Your task to perform on an android device: delete browsing data in the chrome app Image 0: 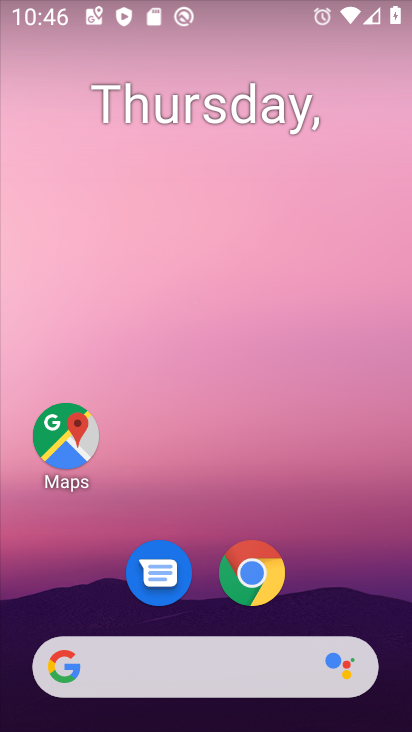
Step 0: click (250, 574)
Your task to perform on an android device: delete browsing data in the chrome app Image 1: 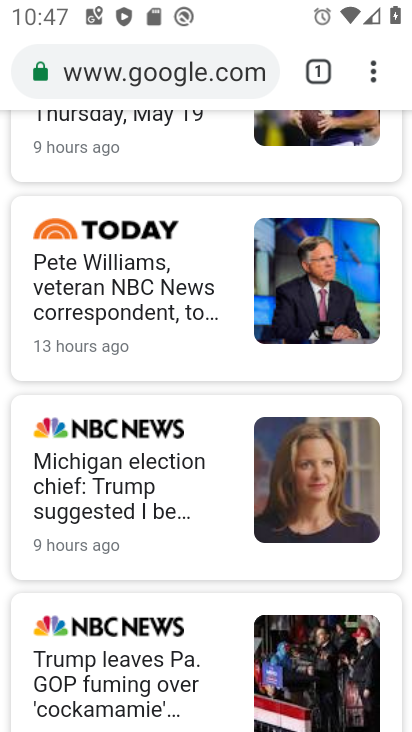
Step 1: click (388, 68)
Your task to perform on an android device: delete browsing data in the chrome app Image 2: 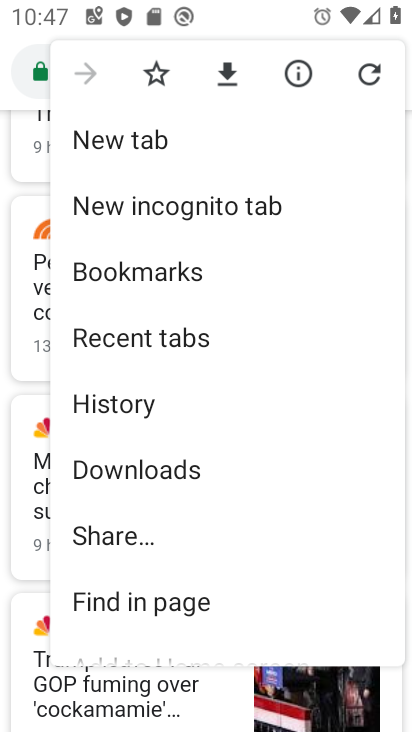
Step 2: click (137, 407)
Your task to perform on an android device: delete browsing data in the chrome app Image 3: 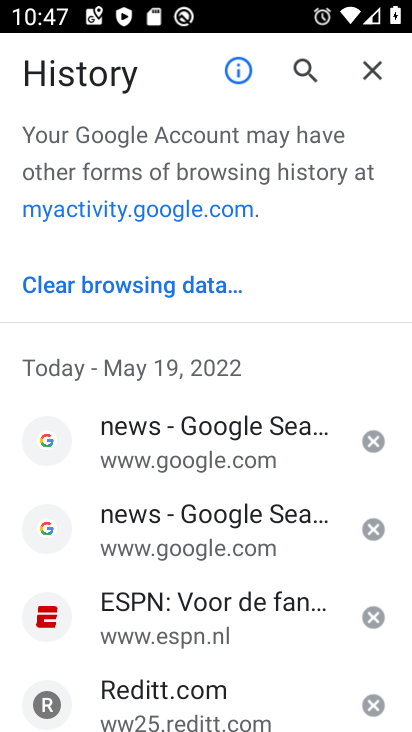
Step 3: click (162, 282)
Your task to perform on an android device: delete browsing data in the chrome app Image 4: 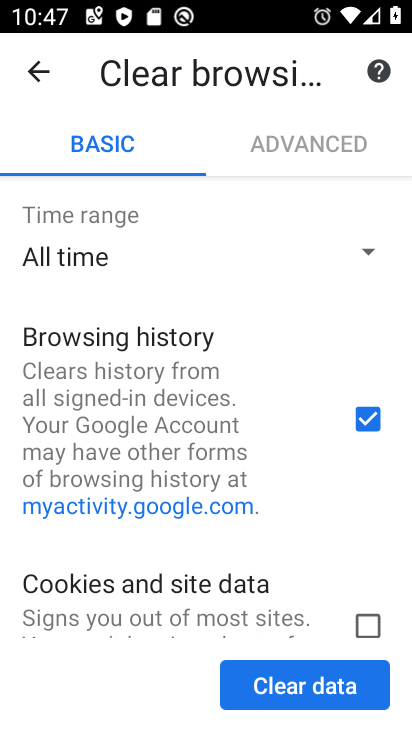
Step 4: drag from (303, 552) to (291, 187)
Your task to perform on an android device: delete browsing data in the chrome app Image 5: 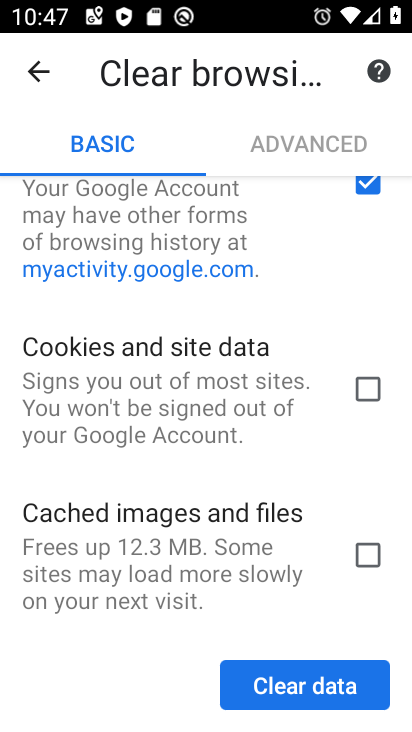
Step 5: click (365, 394)
Your task to perform on an android device: delete browsing data in the chrome app Image 6: 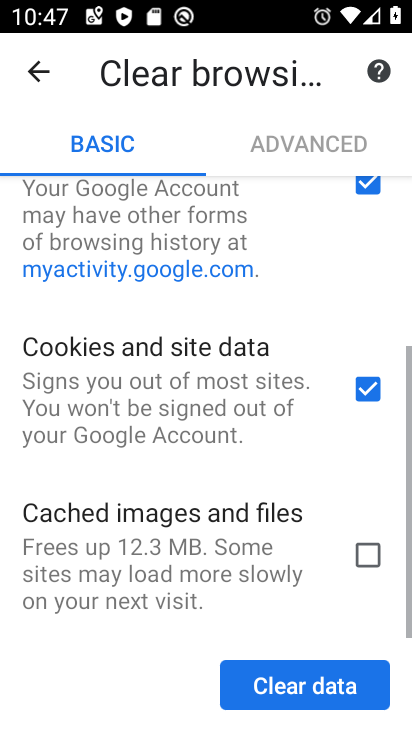
Step 6: click (368, 571)
Your task to perform on an android device: delete browsing data in the chrome app Image 7: 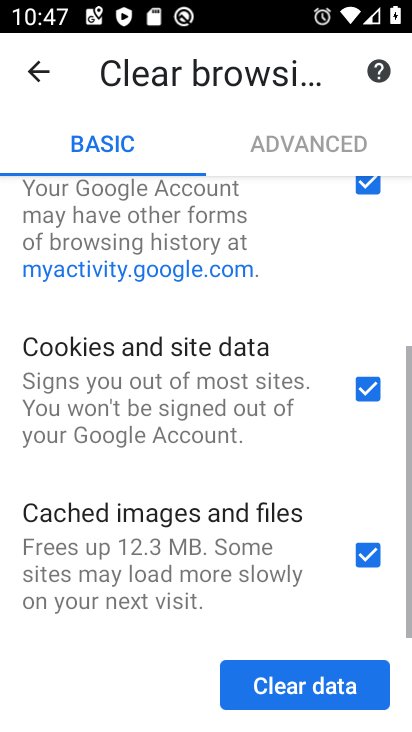
Step 7: drag from (255, 335) to (247, 700)
Your task to perform on an android device: delete browsing data in the chrome app Image 8: 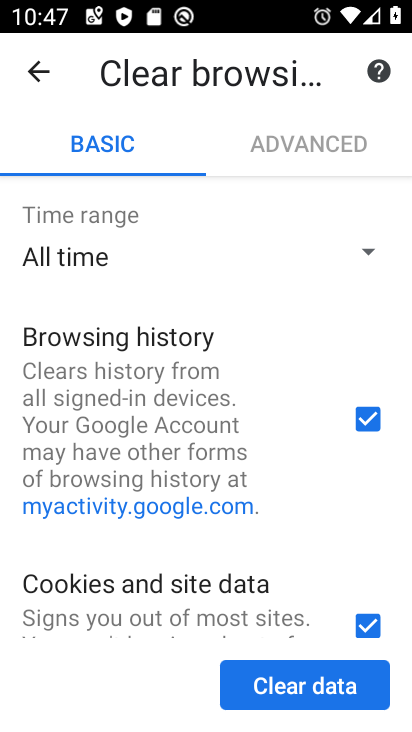
Step 8: drag from (251, 512) to (309, 145)
Your task to perform on an android device: delete browsing data in the chrome app Image 9: 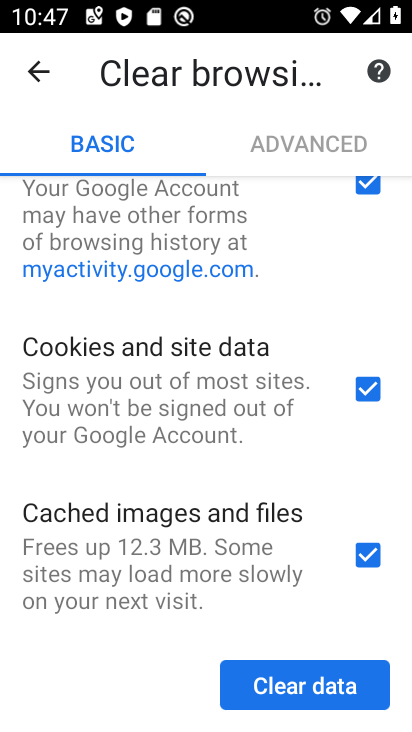
Step 9: click (280, 675)
Your task to perform on an android device: delete browsing data in the chrome app Image 10: 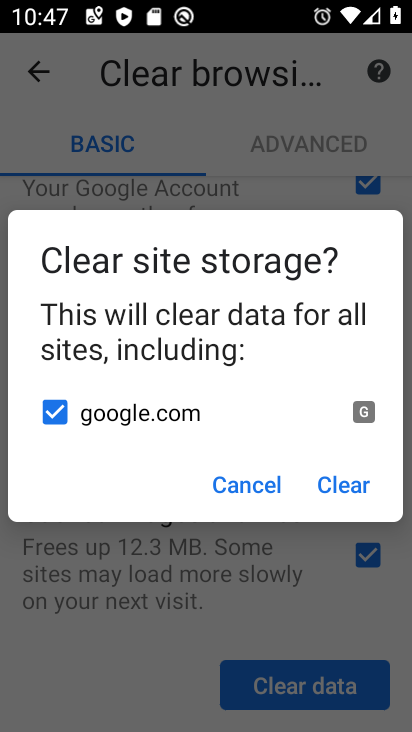
Step 10: click (340, 476)
Your task to perform on an android device: delete browsing data in the chrome app Image 11: 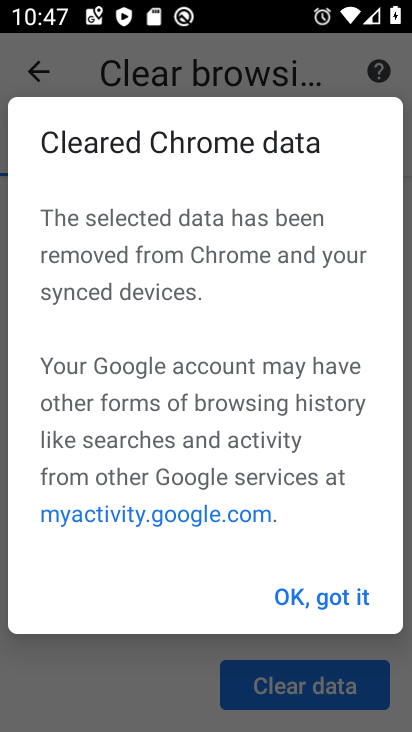
Step 11: click (329, 593)
Your task to perform on an android device: delete browsing data in the chrome app Image 12: 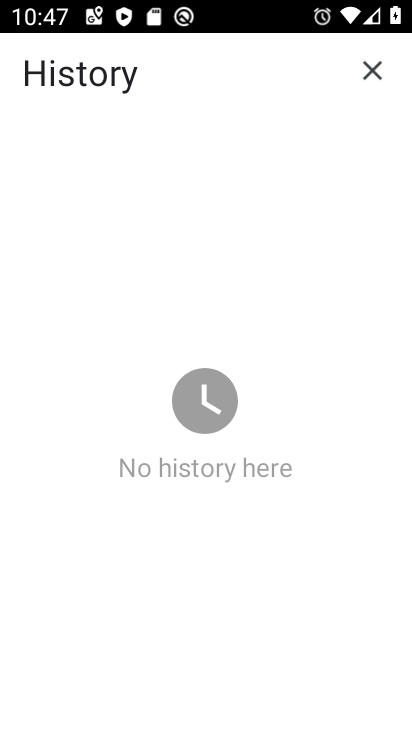
Step 12: task complete